Your task to perform on an android device: change the clock display to show seconds Image 0: 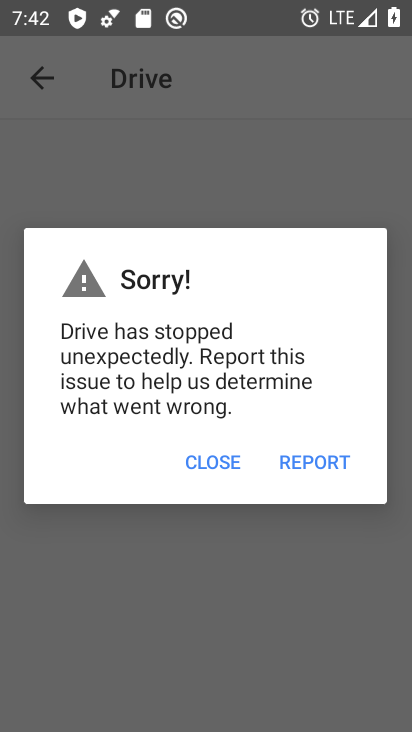
Step 0: press home button
Your task to perform on an android device: change the clock display to show seconds Image 1: 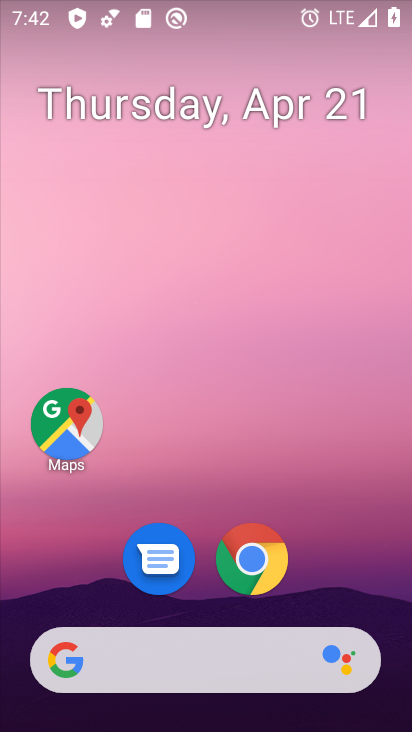
Step 1: drag from (350, 467) to (333, 85)
Your task to perform on an android device: change the clock display to show seconds Image 2: 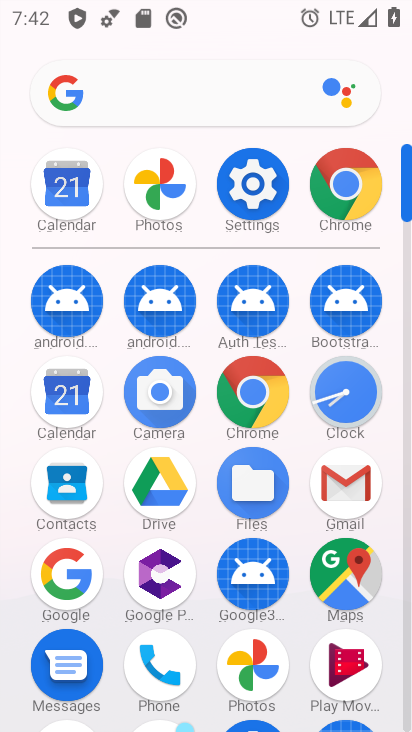
Step 2: click (343, 408)
Your task to perform on an android device: change the clock display to show seconds Image 3: 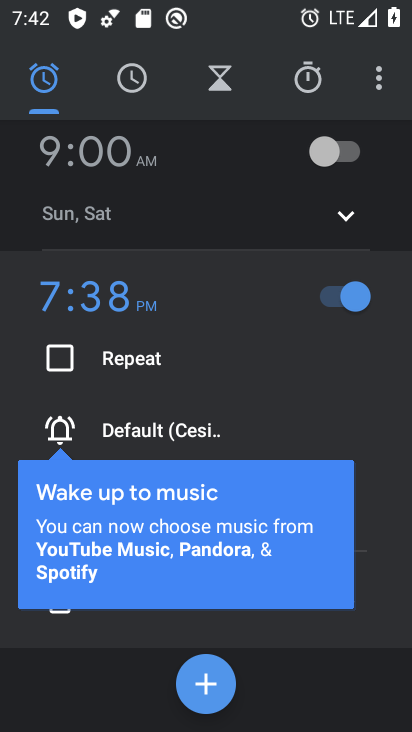
Step 3: click (375, 76)
Your task to perform on an android device: change the clock display to show seconds Image 4: 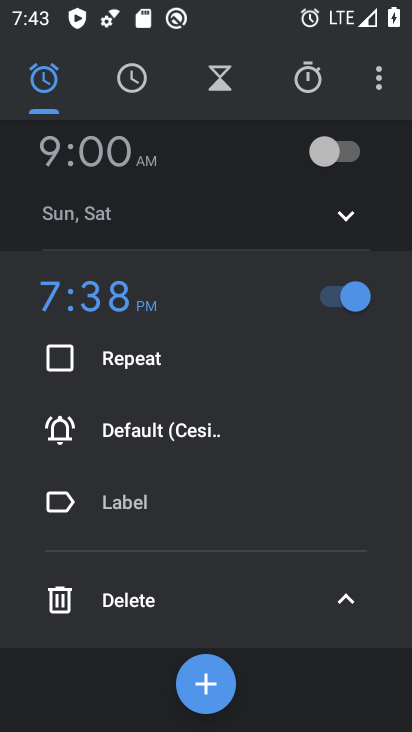
Step 4: click (382, 76)
Your task to perform on an android device: change the clock display to show seconds Image 5: 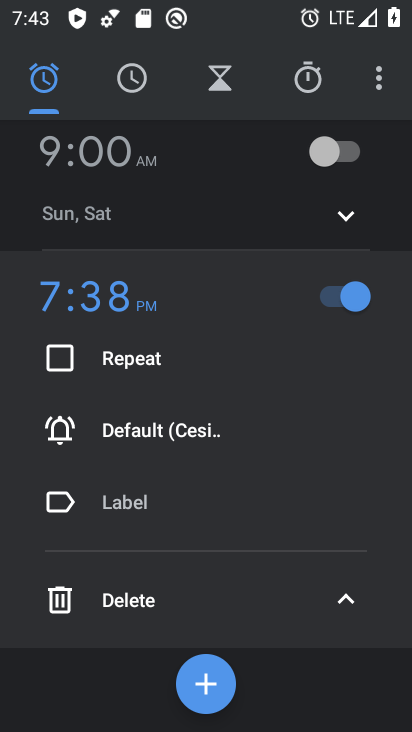
Step 5: click (382, 83)
Your task to perform on an android device: change the clock display to show seconds Image 6: 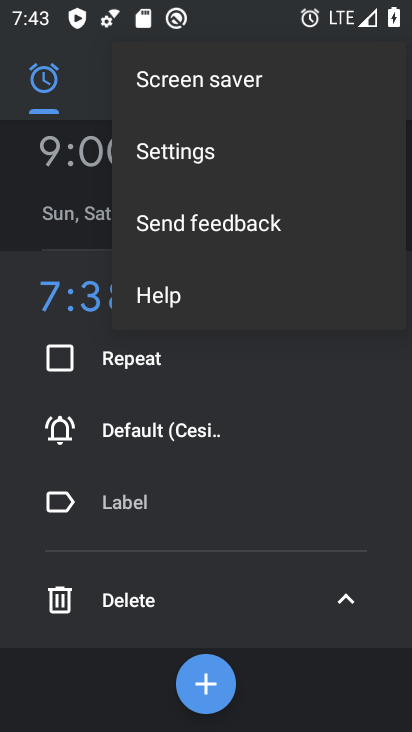
Step 6: click (194, 166)
Your task to perform on an android device: change the clock display to show seconds Image 7: 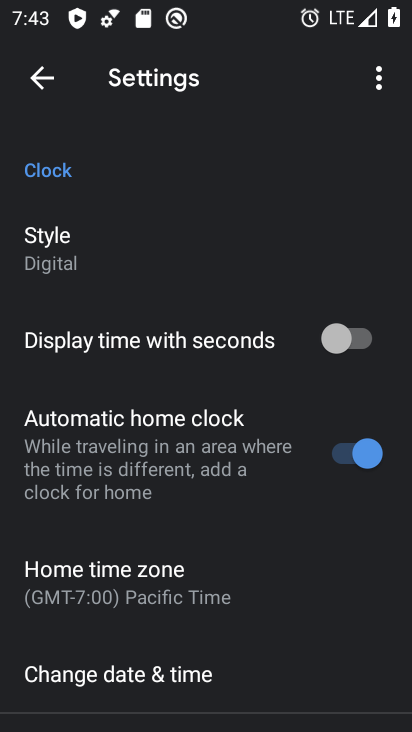
Step 7: click (368, 333)
Your task to perform on an android device: change the clock display to show seconds Image 8: 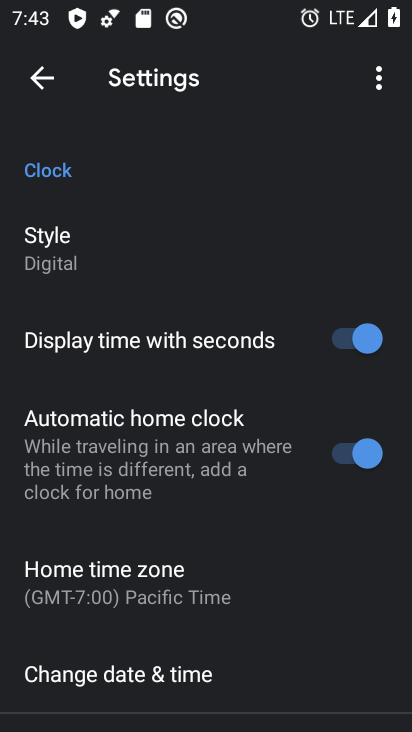
Step 8: task complete